Your task to perform on an android device: Go to Yahoo.com Image 0: 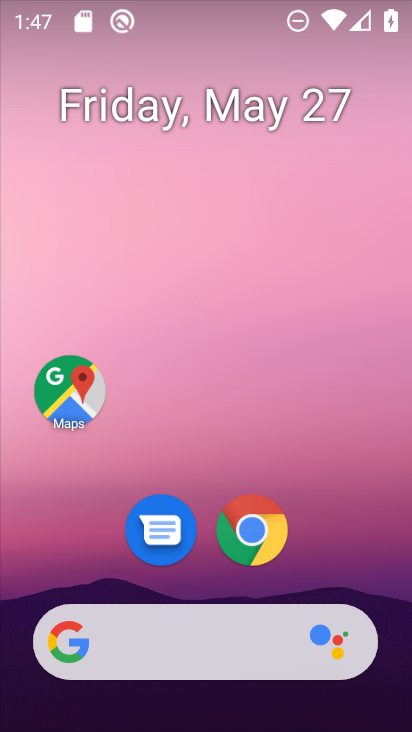
Step 0: click (250, 540)
Your task to perform on an android device: Go to Yahoo.com Image 1: 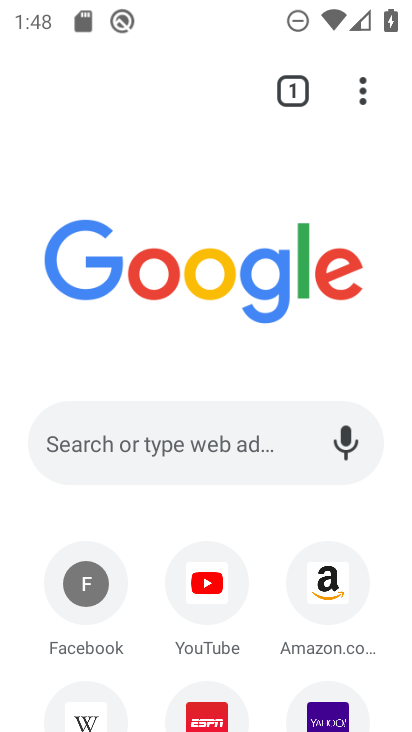
Step 1: drag from (394, 665) to (395, 183)
Your task to perform on an android device: Go to Yahoo.com Image 2: 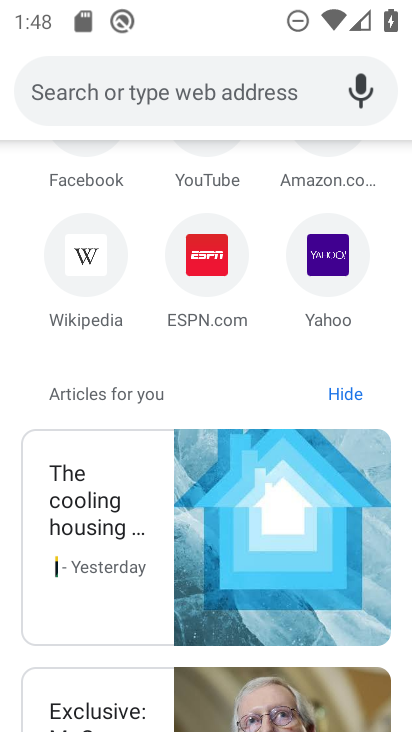
Step 2: click (343, 271)
Your task to perform on an android device: Go to Yahoo.com Image 3: 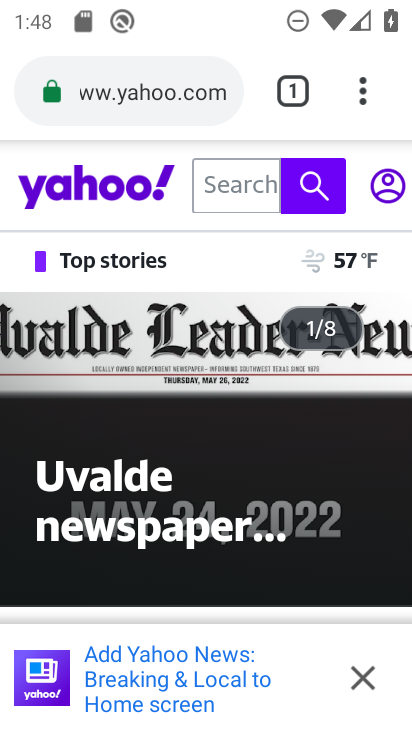
Step 3: task complete